Your task to perform on an android device: Open Google Chrome Image 0: 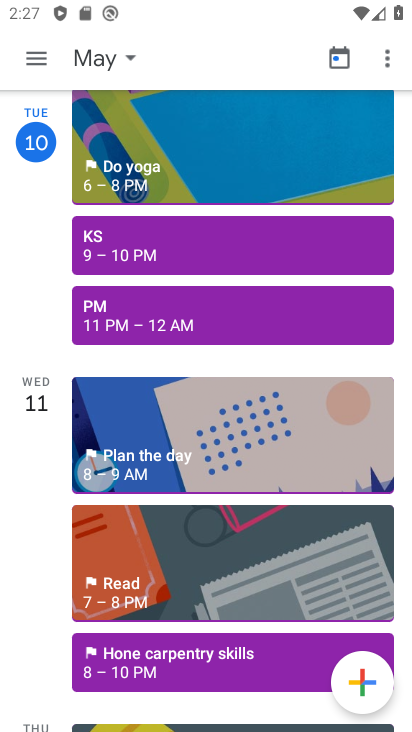
Step 0: press home button
Your task to perform on an android device: Open Google Chrome Image 1: 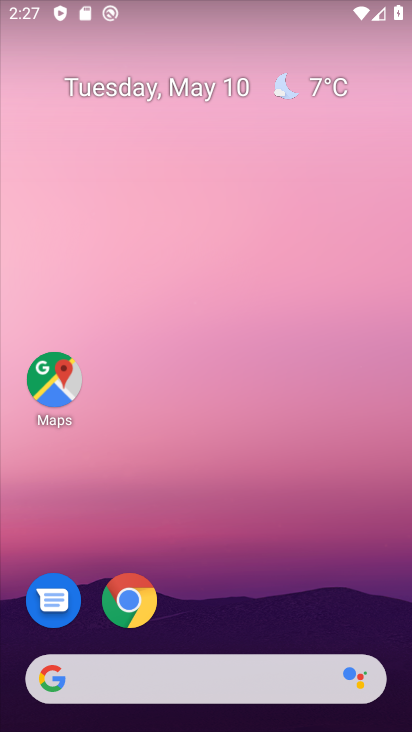
Step 1: click (135, 591)
Your task to perform on an android device: Open Google Chrome Image 2: 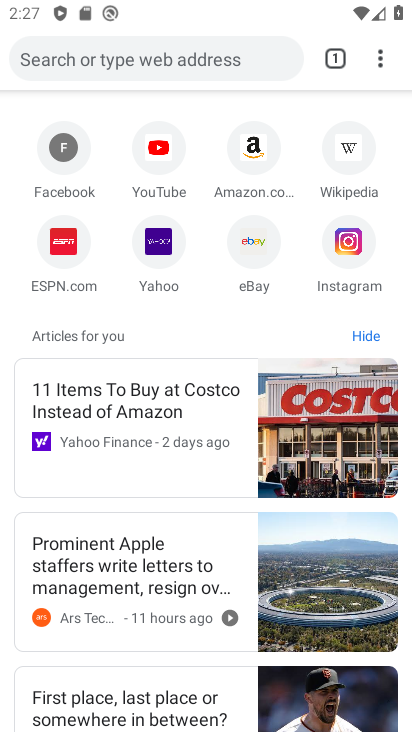
Step 2: task complete